Your task to perform on an android device: change timer sound Image 0: 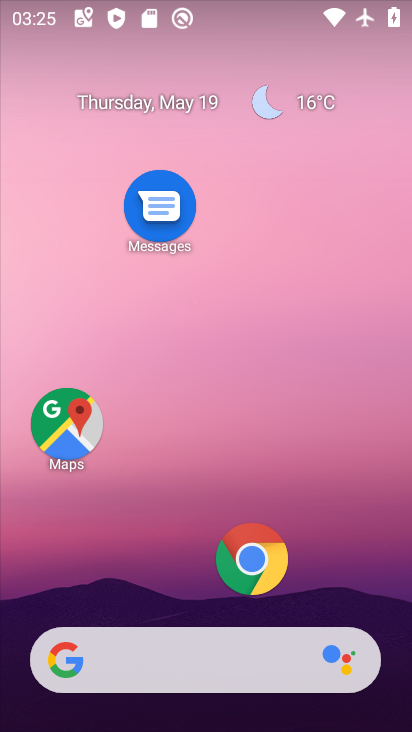
Step 0: drag from (178, 576) to (189, 246)
Your task to perform on an android device: change timer sound Image 1: 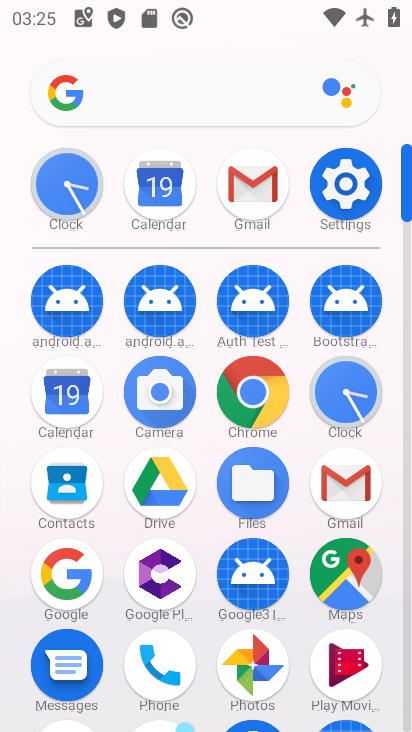
Step 1: click (332, 180)
Your task to perform on an android device: change timer sound Image 2: 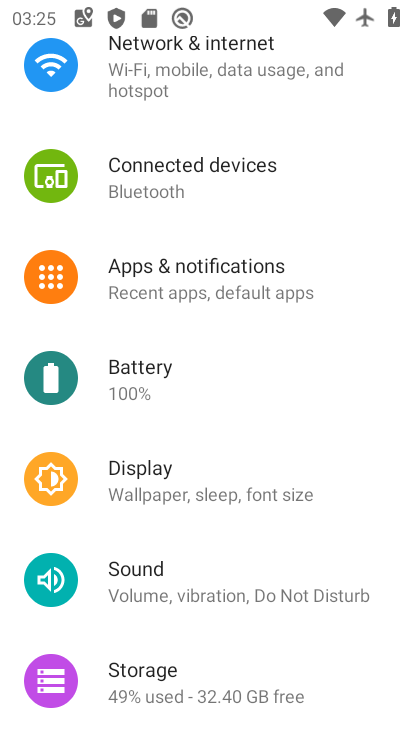
Step 2: press home button
Your task to perform on an android device: change timer sound Image 3: 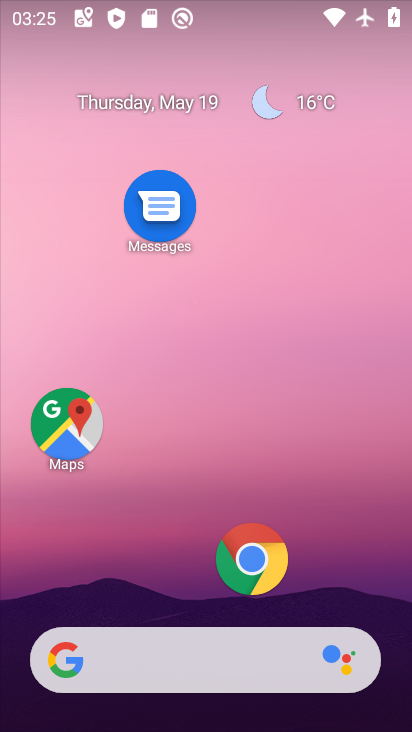
Step 3: drag from (175, 585) to (211, 332)
Your task to perform on an android device: change timer sound Image 4: 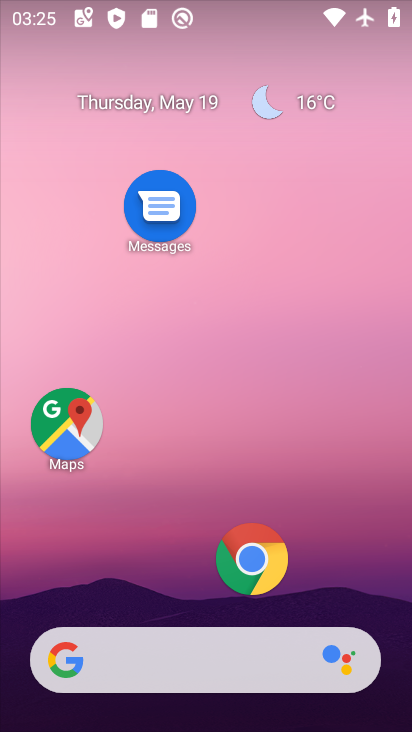
Step 4: drag from (185, 573) to (228, 243)
Your task to perform on an android device: change timer sound Image 5: 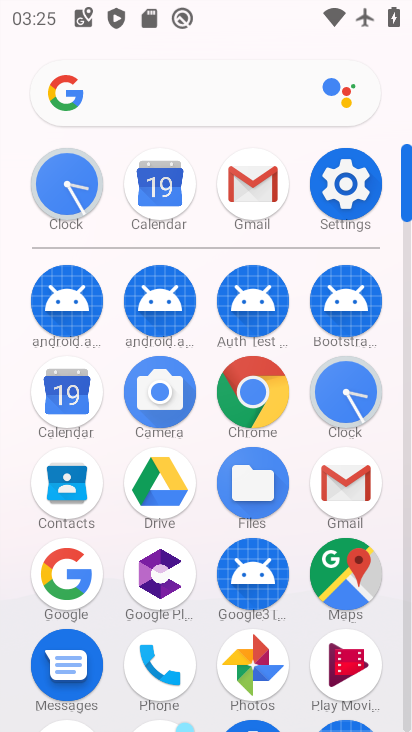
Step 5: click (338, 399)
Your task to perform on an android device: change timer sound Image 6: 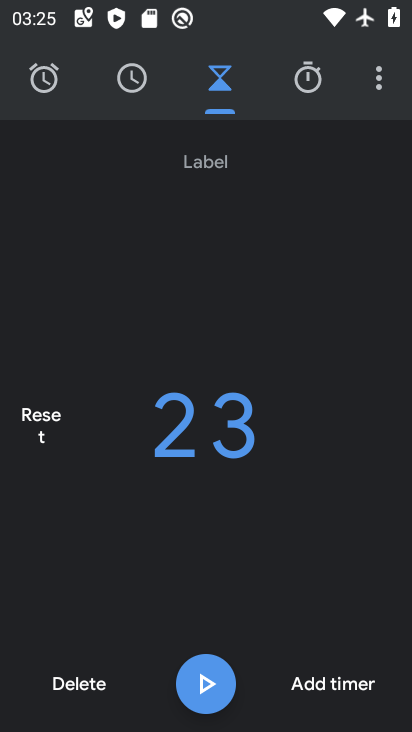
Step 6: click (376, 74)
Your task to perform on an android device: change timer sound Image 7: 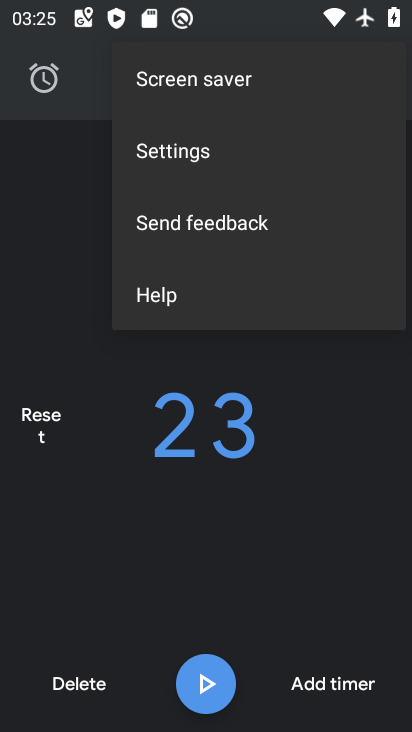
Step 7: click (178, 158)
Your task to perform on an android device: change timer sound Image 8: 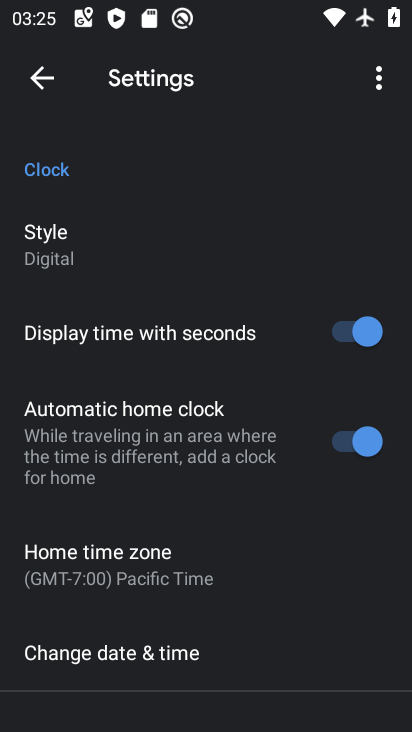
Step 8: drag from (208, 585) to (210, 299)
Your task to perform on an android device: change timer sound Image 9: 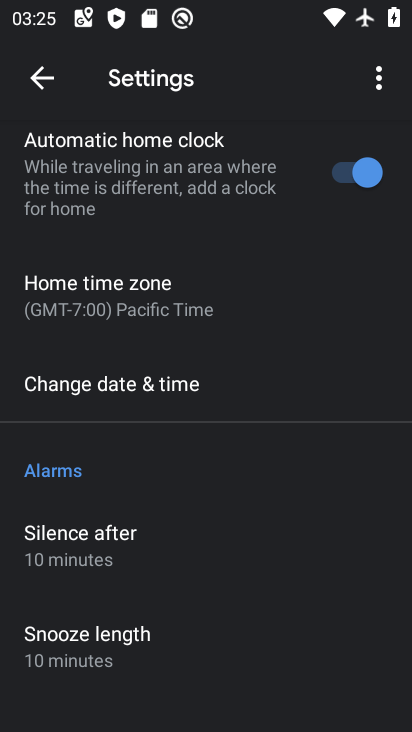
Step 9: drag from (210, 578) to (227, 352)
Your task to perform on an android device: change timer sound Image 10: 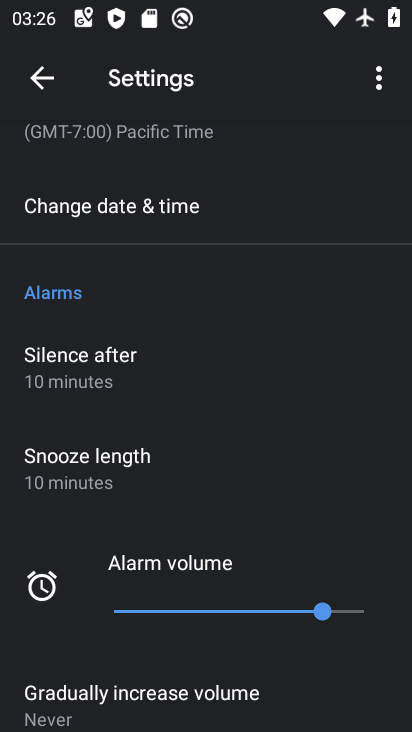
Step 10: drag from (214, 612) to (232, 357)
Your task to perform on an android device: change timer sound Image 11: 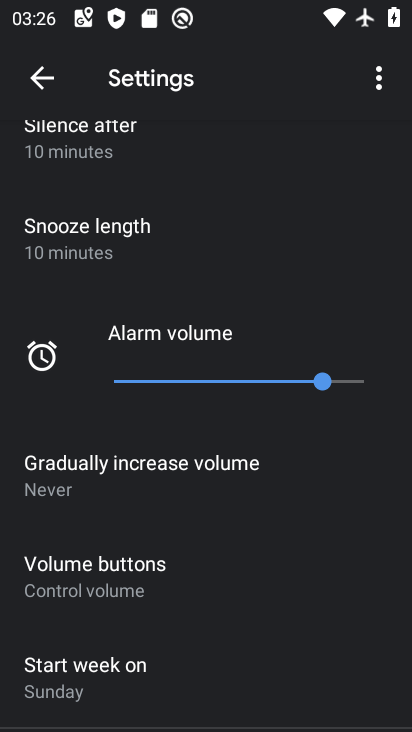
Step 11: drag from (167, 666) to (202, 446)
Your task to perform on an android device: change timer sound Image 12: 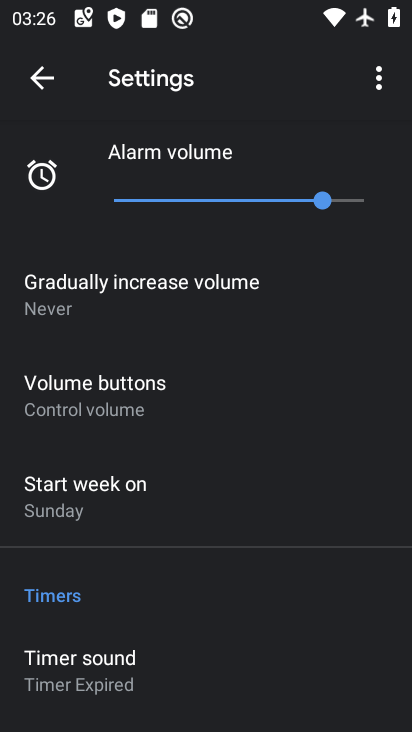
Step 12: drag from (178, 607) to (205, 411)
Your task to perform on an android device: change timer sound Image 13: 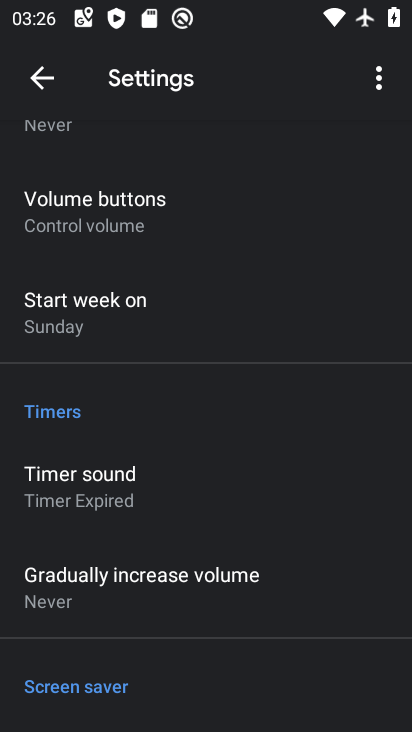
Step 13: click (173, 469)
Your task to perform on an android device: change timer sound Image 14: 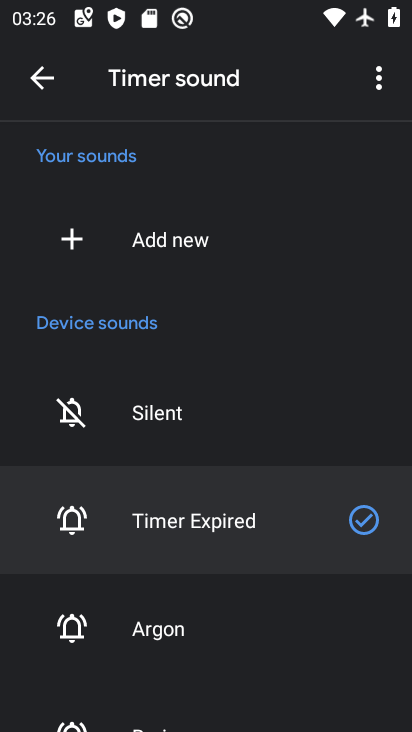
Step 14: drag from (195, 577) to (206, 350)
Your task to perform on an android device: change timer sound Image 15: 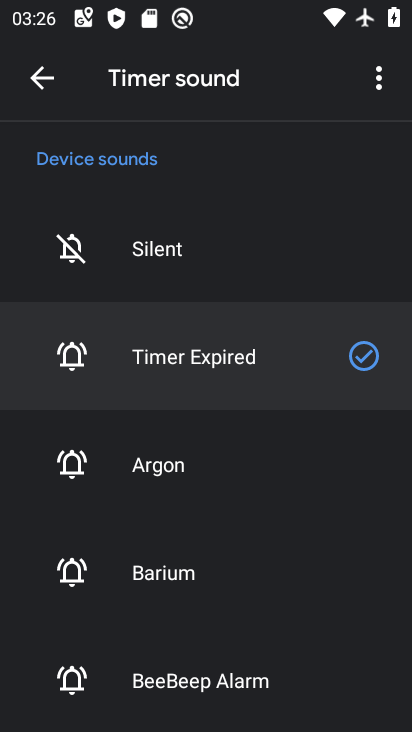
Step 15: click (188, 486)
Your task to perform on an android device: change timer sound Image 16: 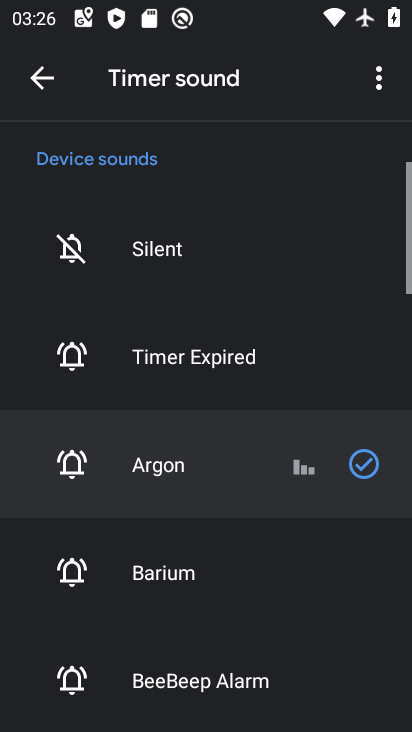
Step 16: task complete